Your task to perform on an android device: Go to accessibility settings Image 0: 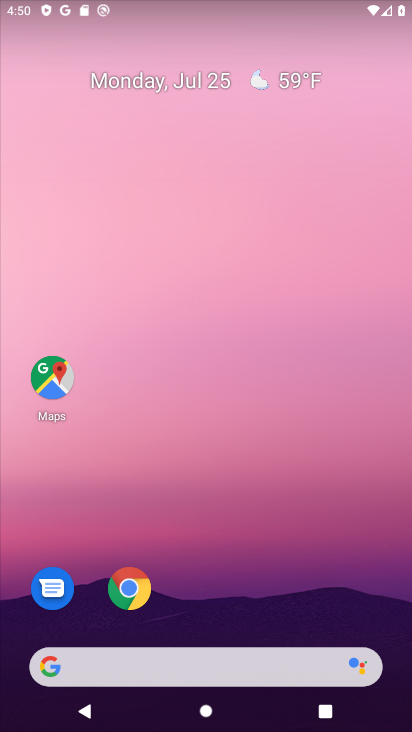
Step 0: drag from (302, 567) to (350, 185)
Your task to perform on an android device: Go to accessibility settings Image 1: 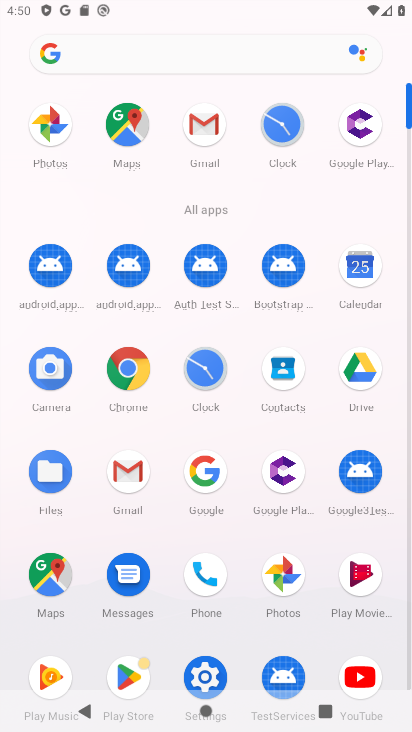
Step 1: click (203, 671)
Your task to perform on an android device: Go to accessibility settings Image 2: 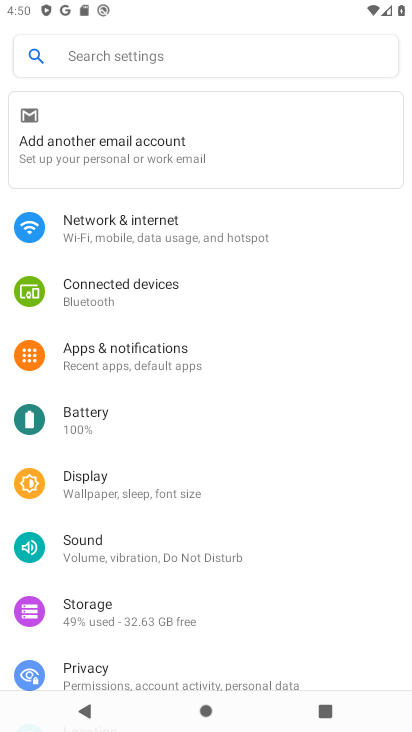
Step 2: drag from (318, 610) to (315, 283)
Your task to perform on an android device: Go to accessibility settings Image 3: 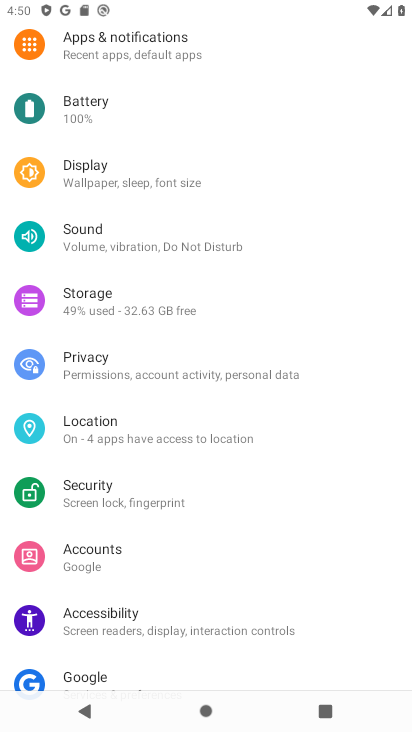
Step 3: click (128, 623)
Your task to perform on an android device: Go to accessibility settings Image 4: 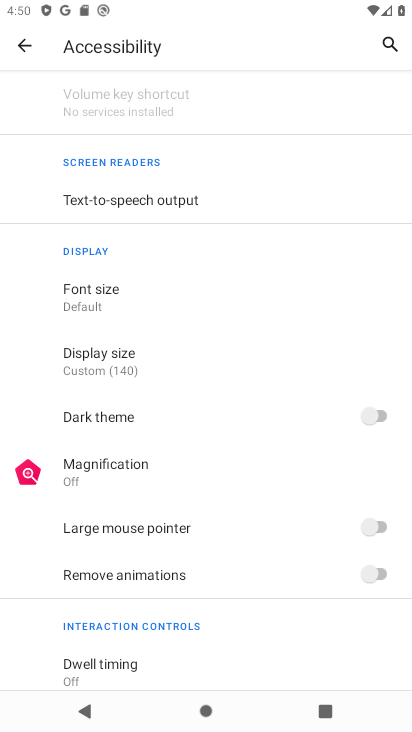
Step 4: task complete